Your task to perform on an android device: allow cookies in the chrome app Image 0: 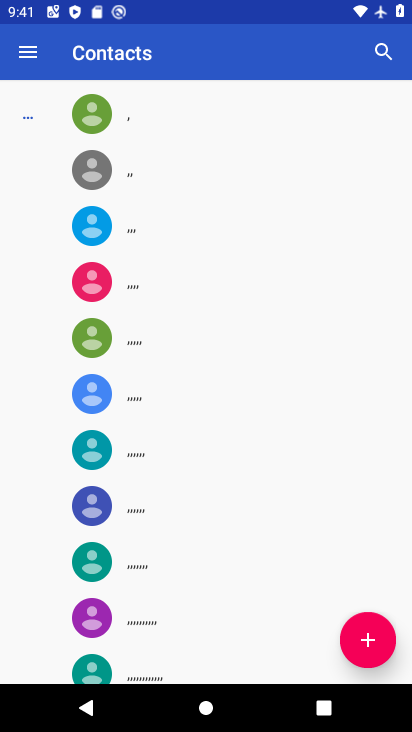
Step 0: press home button
Your task to perform on an android device: allow cookies in the chrome app Image 1: 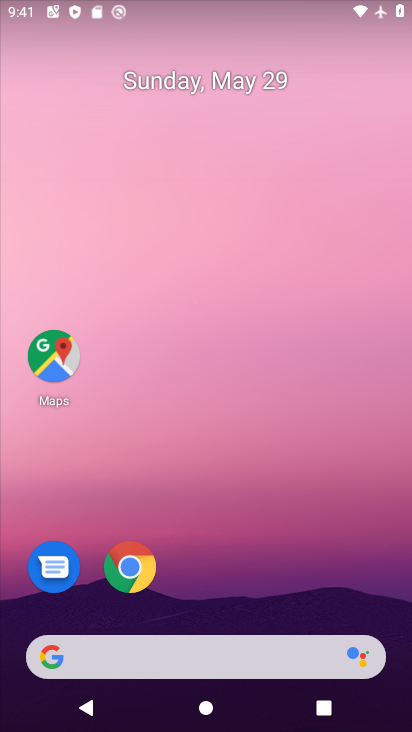
Step 1: click (131, 565)
Your task to perform on an android device: allow cookies in the chrome app Image 2: 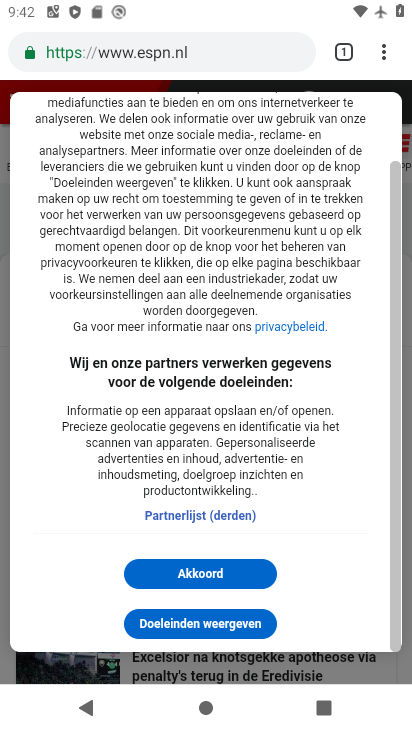
Step 2: click (379, 55)
Your task to perform on an android device: allow cookies in the chrome app Image 3: 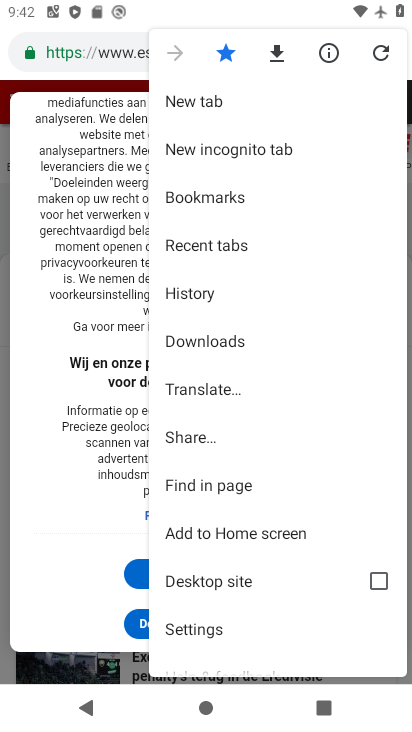
Step 3: click (207, 619)
Your task to perform on an android device: allow cookies in the chrome app Image 4: 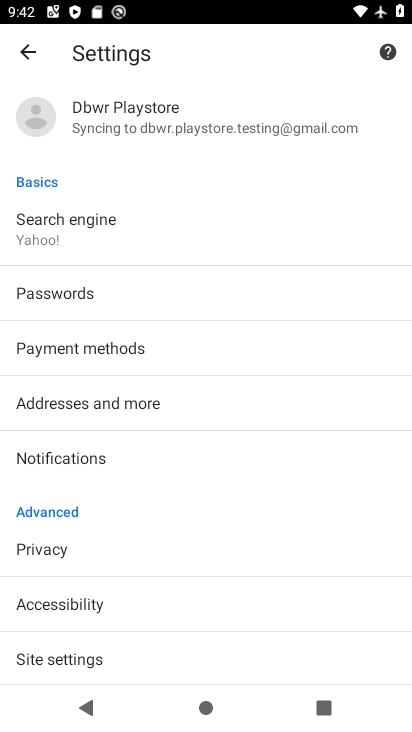
Step 4: click (66, 656)
Your task to perform on an android device: allow cookies in the chrome app Image 5: 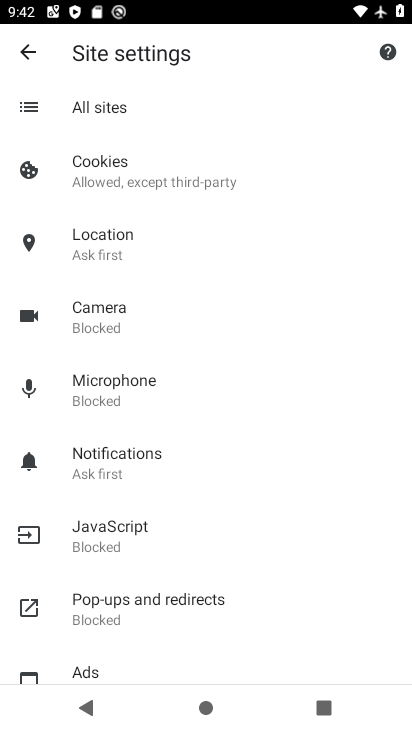
Step 5: click (123, 159)
Your task to perform on an android device: allow cookies in the chrome app Image 6: 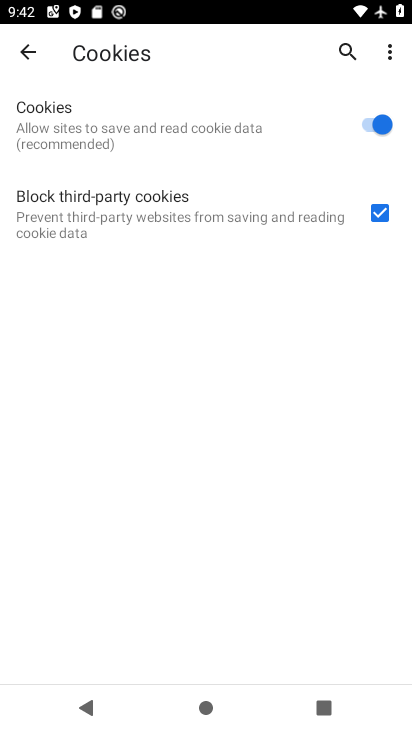
Step 6: task complete